Your task to perform on an android device: open a bookmark in the chrome app Image 0: 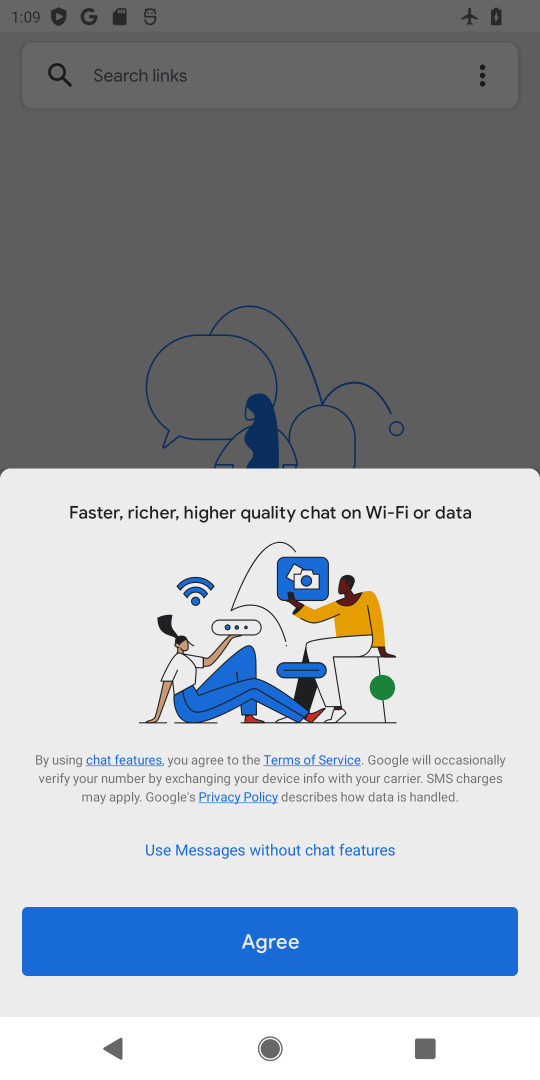
Step 0: press home button
Your task to perform on an android device: open a bookmark in the chrome app Image 1: 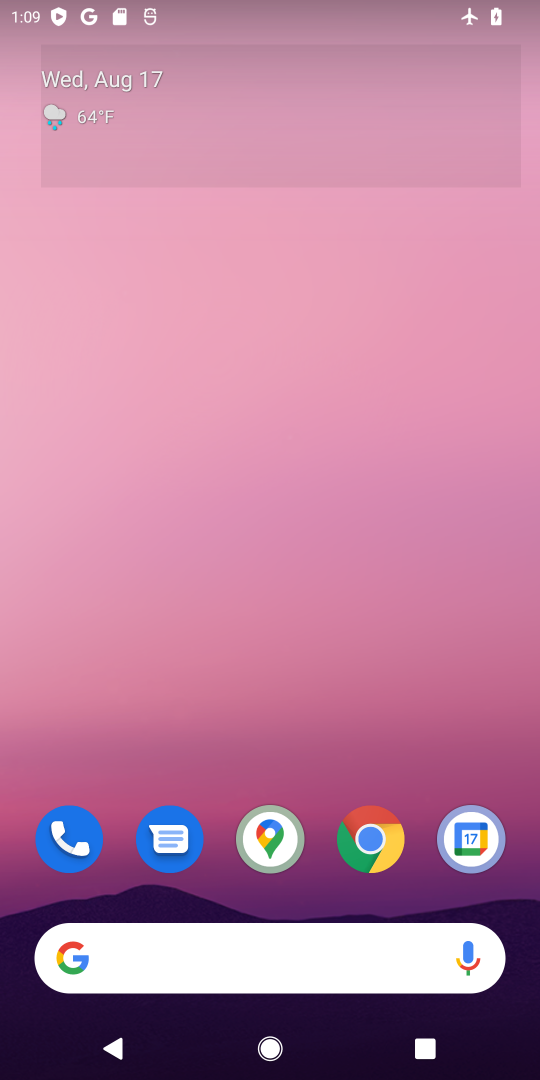
Step 1: click (367, 843)
Your task to perform on an android device: open a bookmark in the chrome app Image 2: 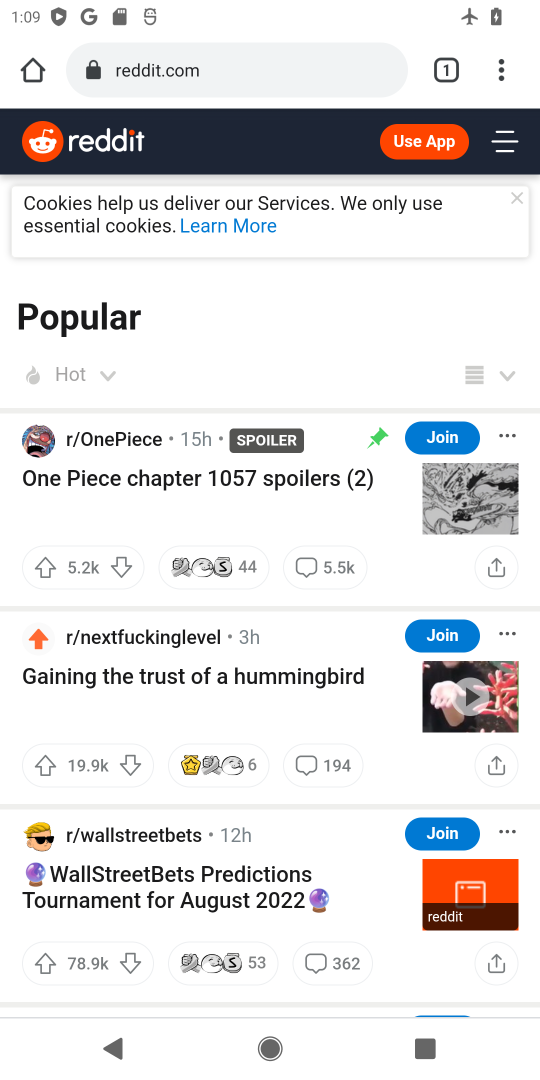
Step 2: task complete